Your task to perform on an android device: delete a single message in the gmail app Image 0: 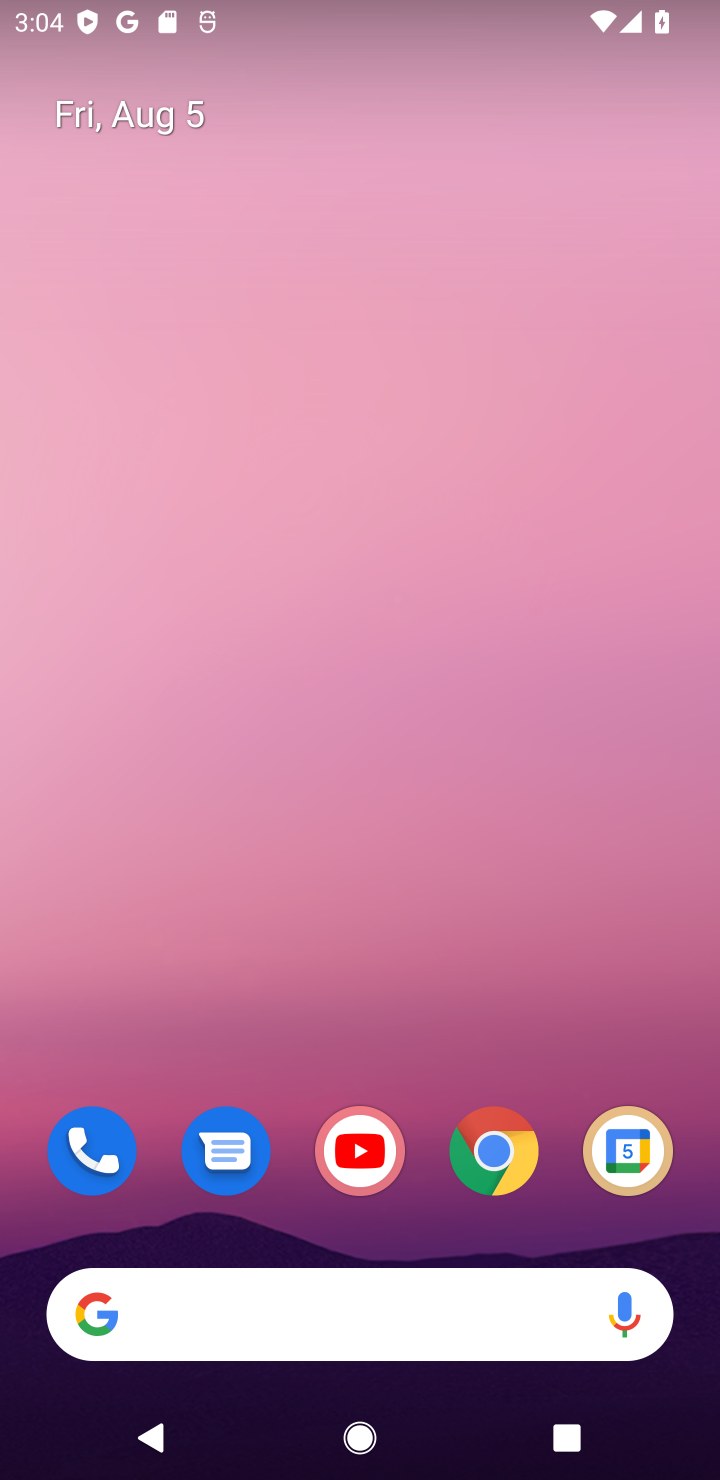
Step 0: drag from (395, 1057) to (696, 218)
Your task to perform on an android device: delete a single message in the gmail app Image 1: 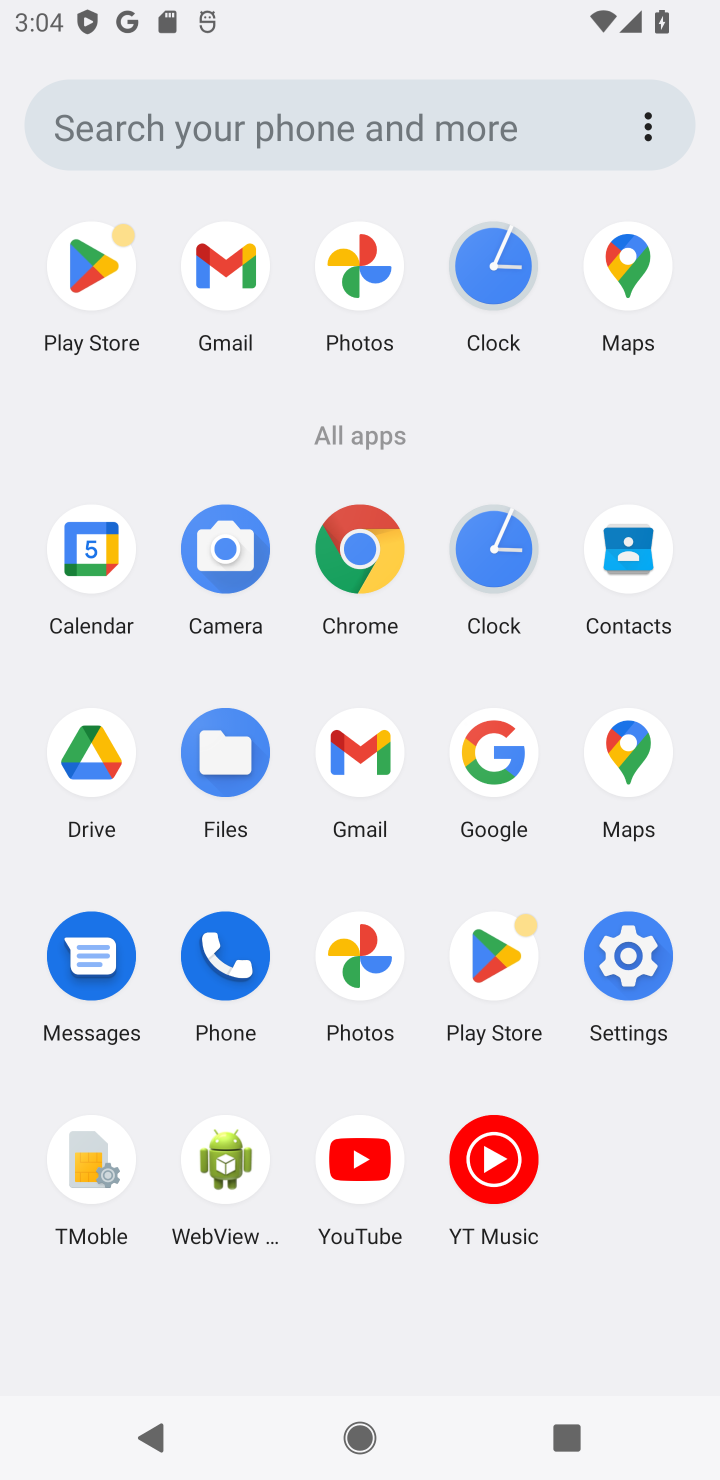
Step 1: click (343, 733)
Your task to perform on an android device: delete a single message in the gmail app Image 2: 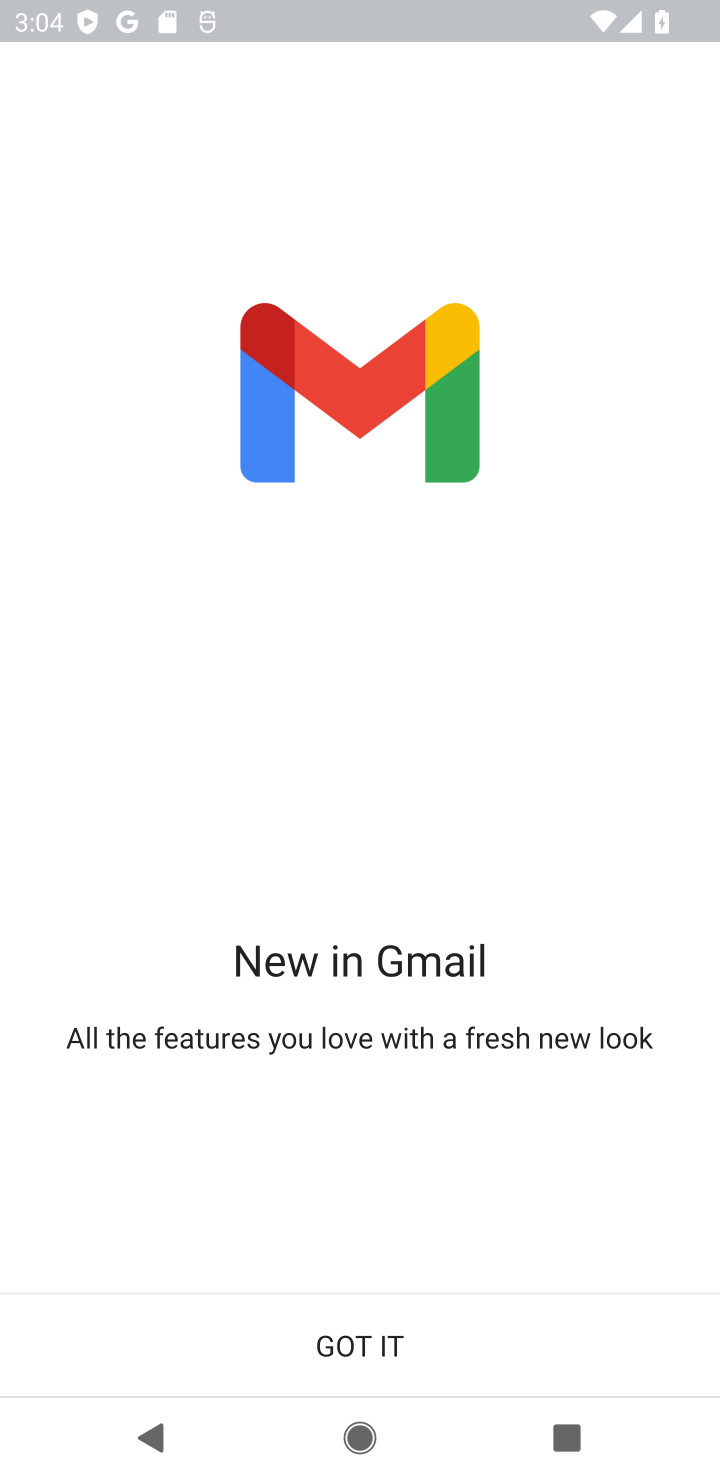
Step 2: click (445, 1327)
Your task to perform on an android device: delete a single message in the gmail app Image 3: 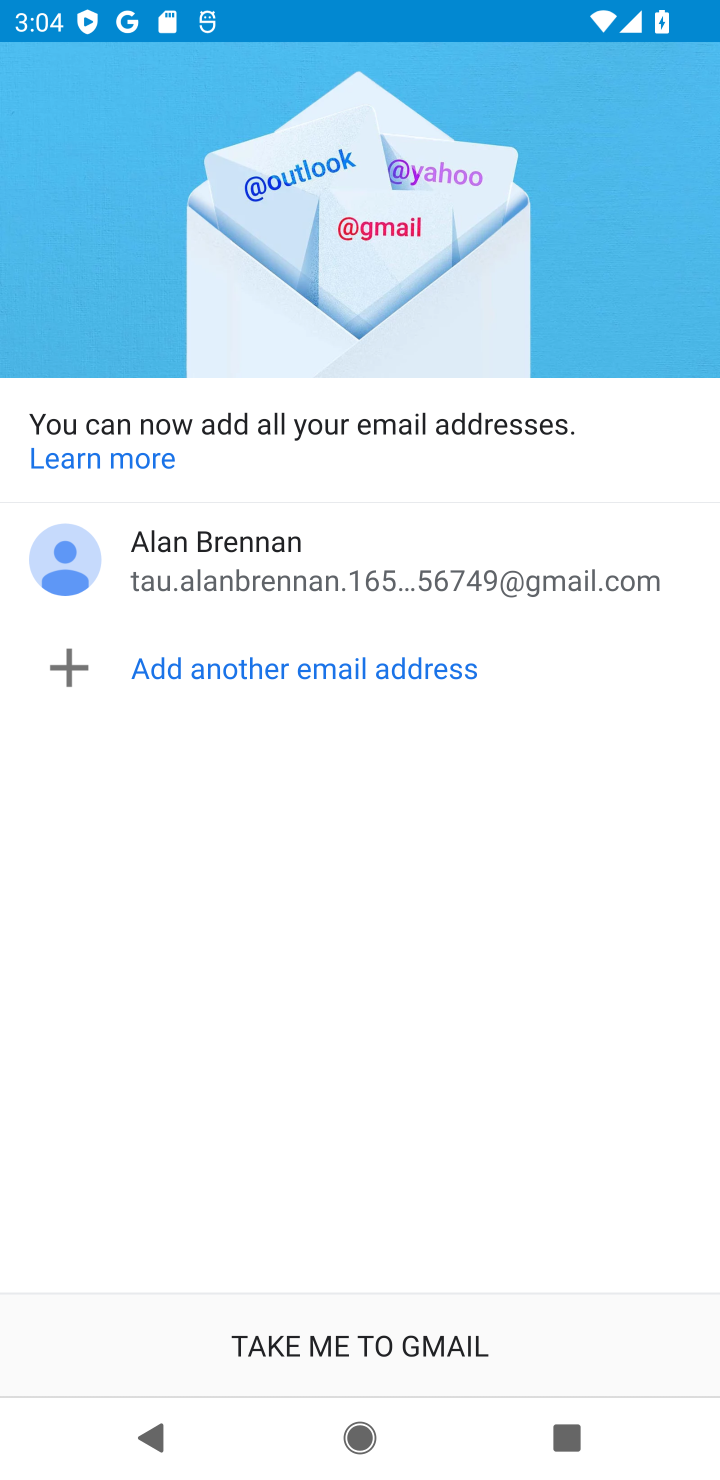
Step 3: click (445, 1327)
Your task to perform on an android device: delete a single message in the gmail app Image 4: 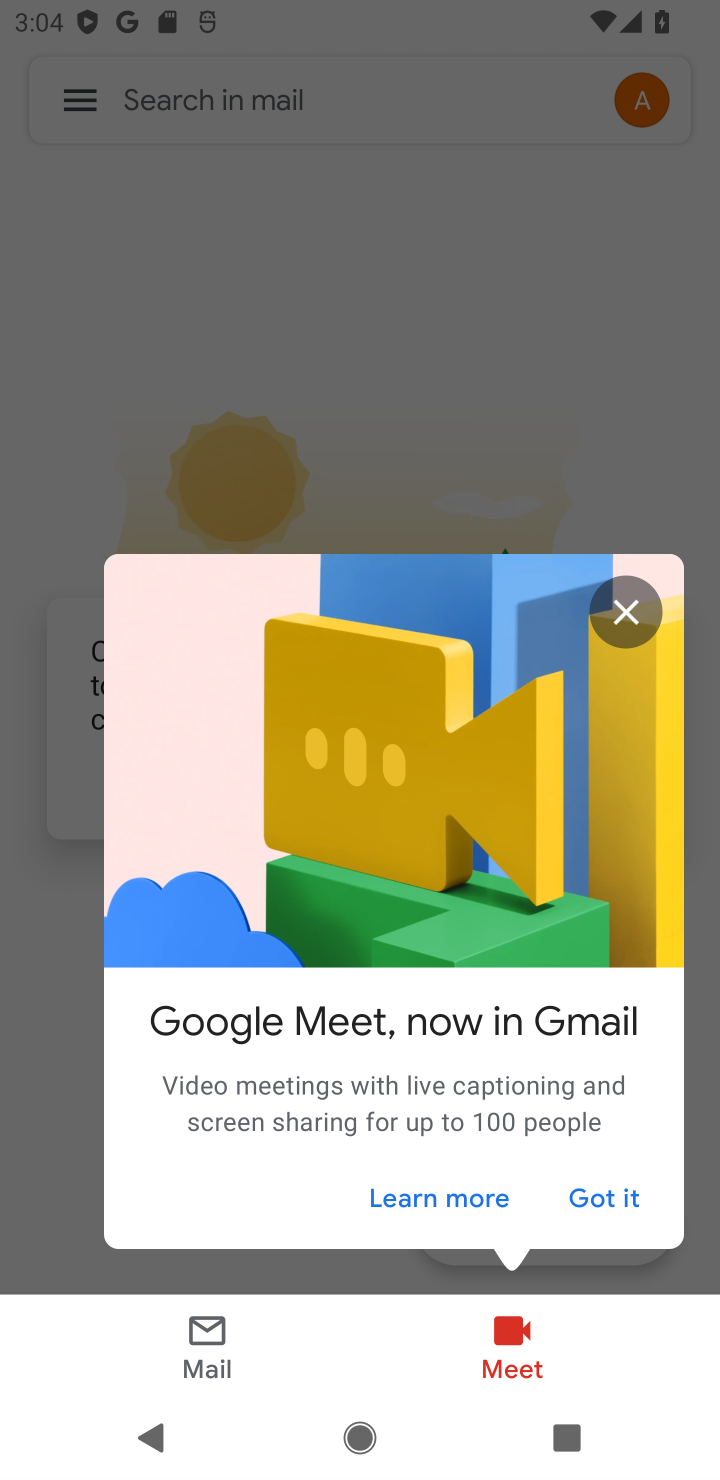
Step 4: click (602, 1203)
Your task to perform on an android device: delete a single message in the gmail app Image 5: 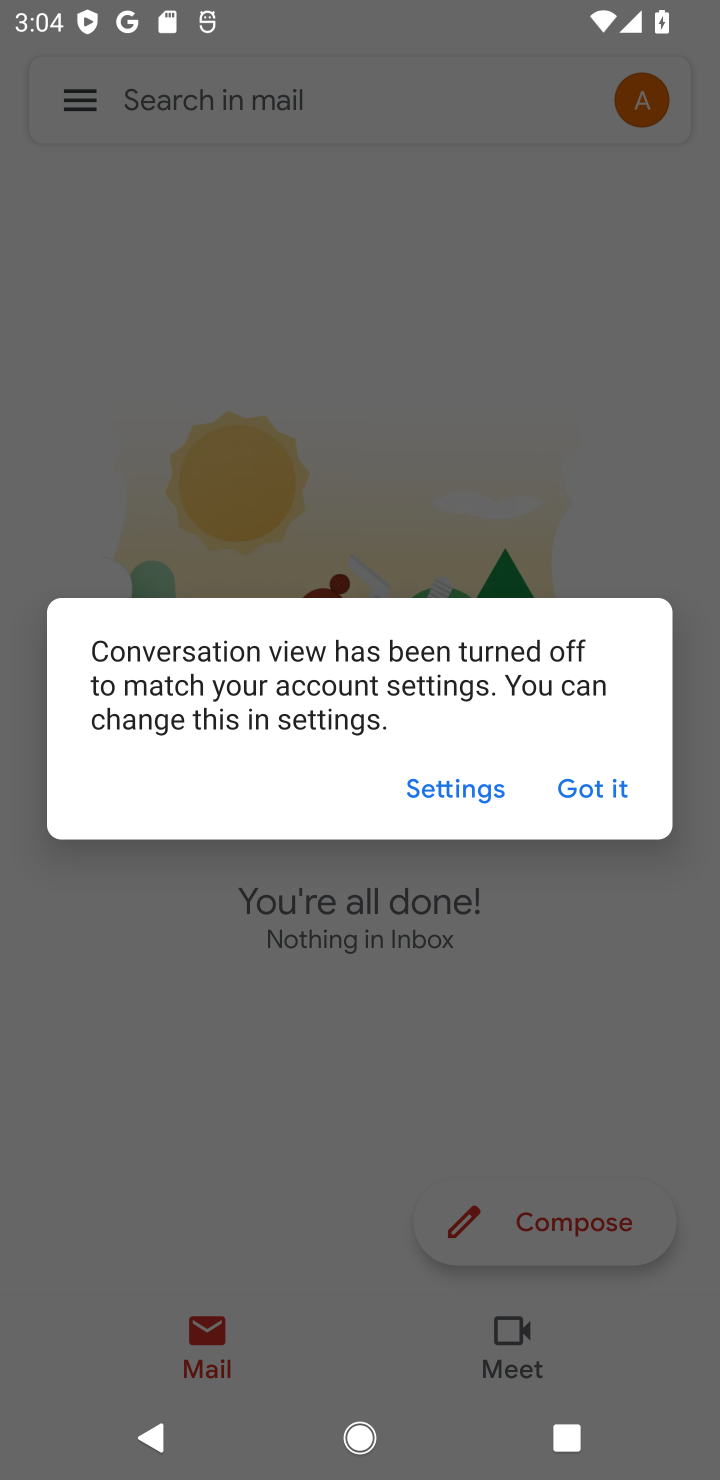
Step 5: click (580, 784)
Your task to perform on an android device: delete a single message in the gmail app Image 6: 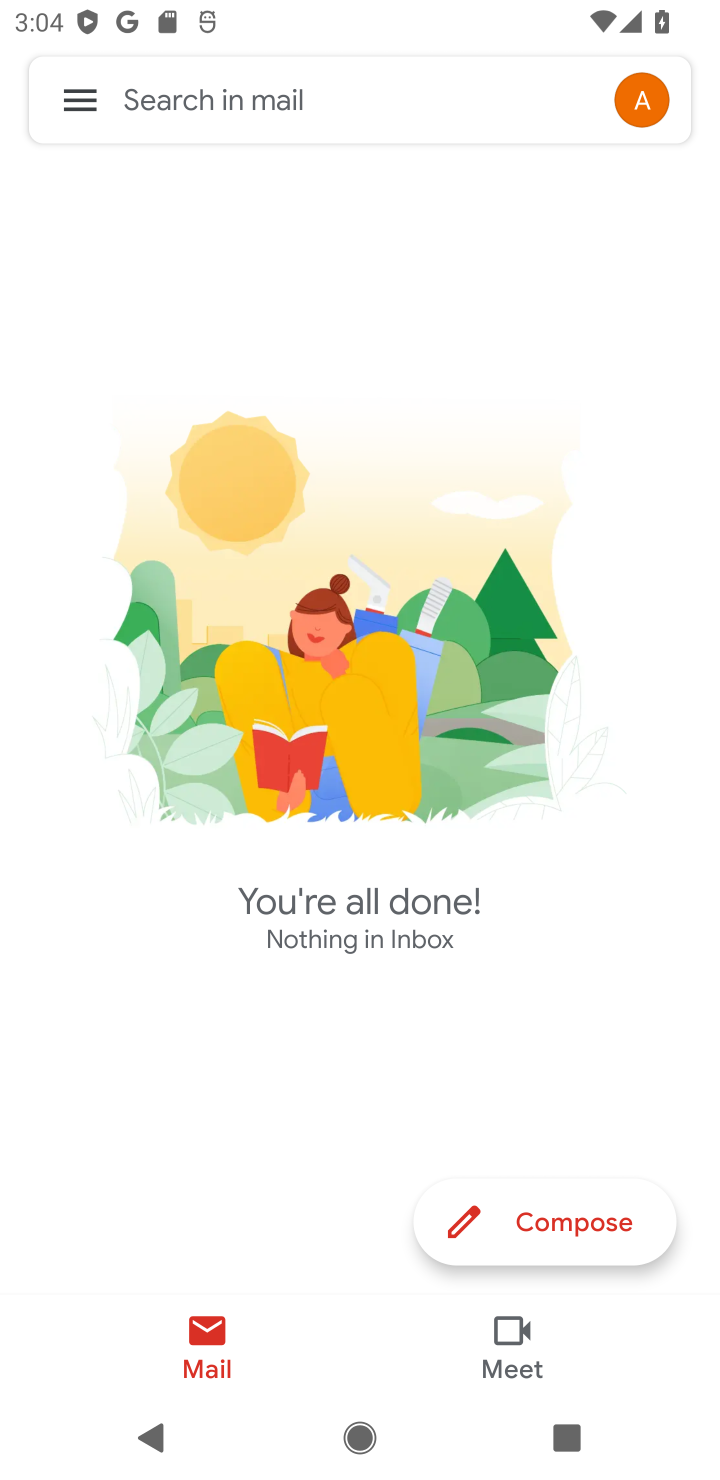
Step 6: click (77, 86)
Your task to perform on an android device: delete a single message in the gmail app Image 7: 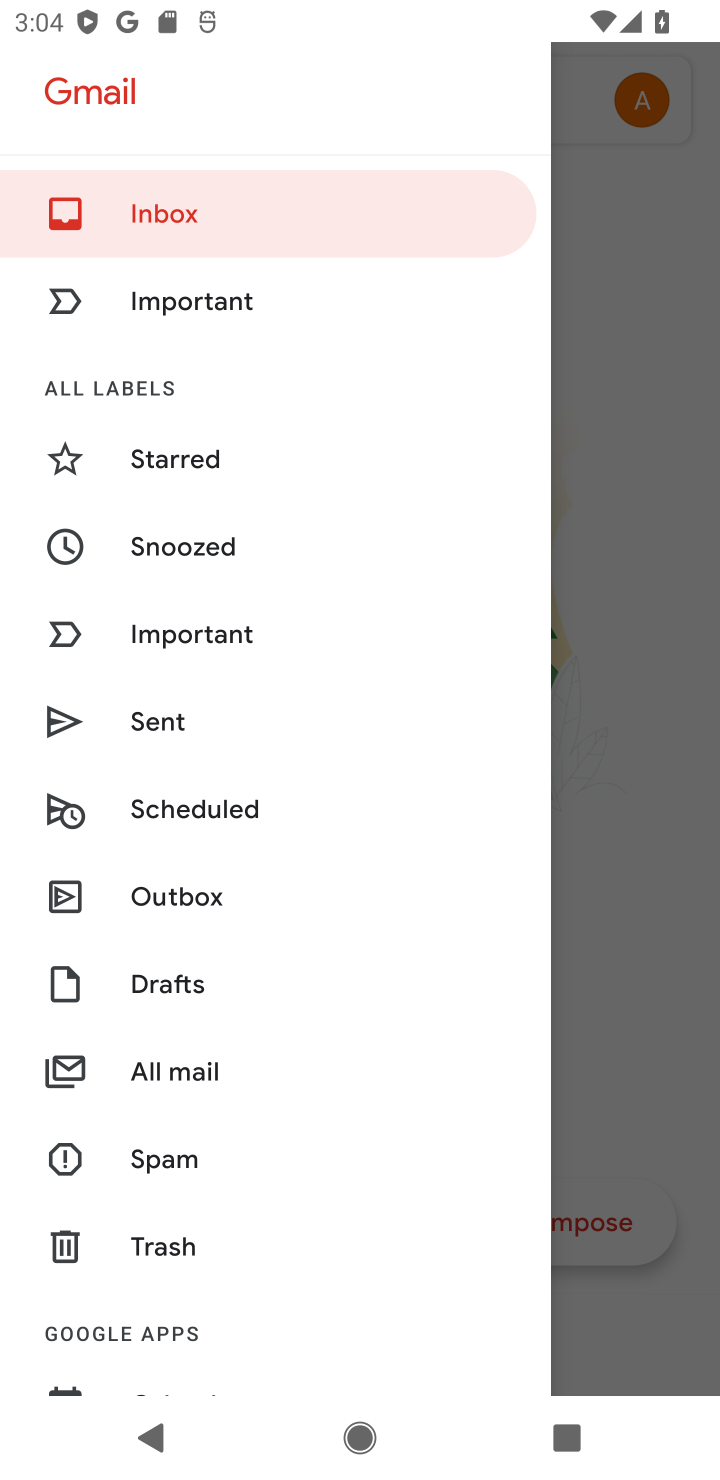
Step 7: click (163, 1051)
Your task to perform on an android device: delete a single message in the gmail app Image 8: 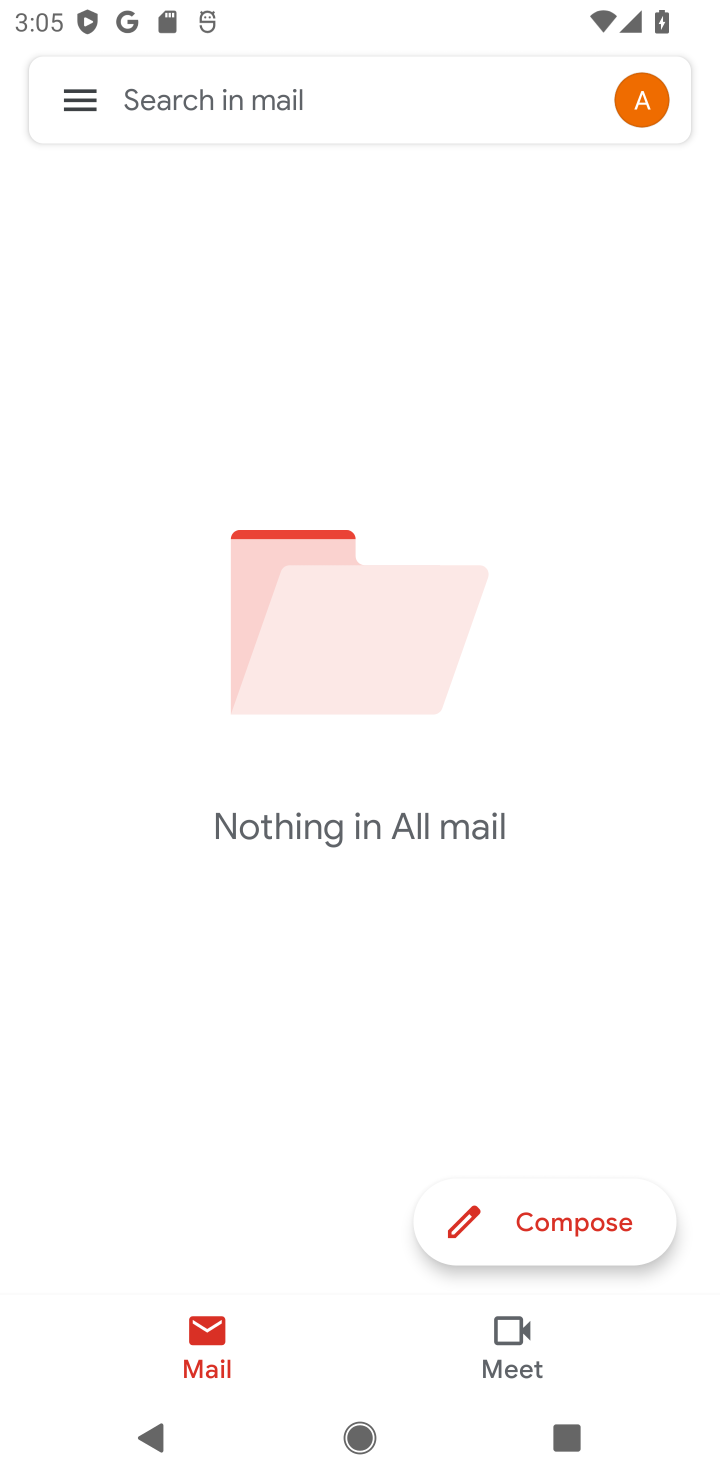
Step 8: task complete